Your task to perform on an android device: Open Maps and search for coffee Image 0: 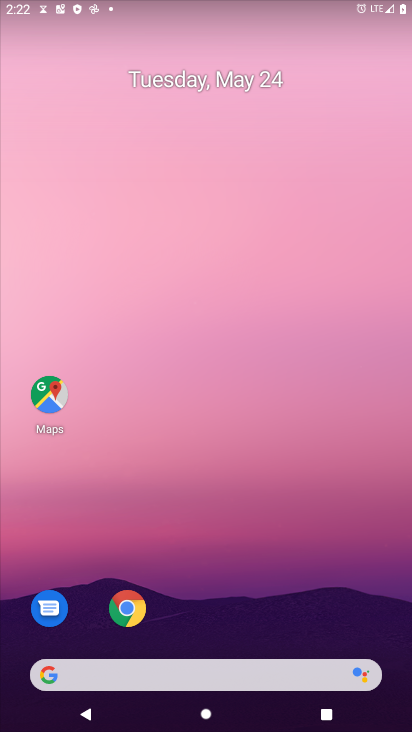
Step 0: drag from (277, 697) to (239, 289)
Your task to perform on an android device: Open Maps and search for coffee Image 1: 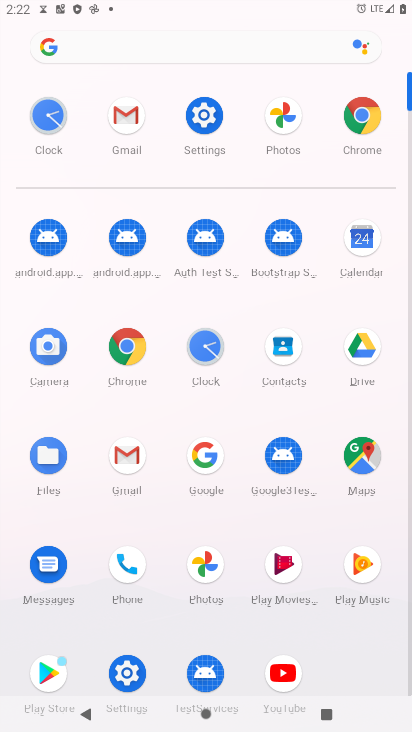
Step 1: click (348, 449)
Your task to perform on an android device: Open Maps and search for coffee Image 2: 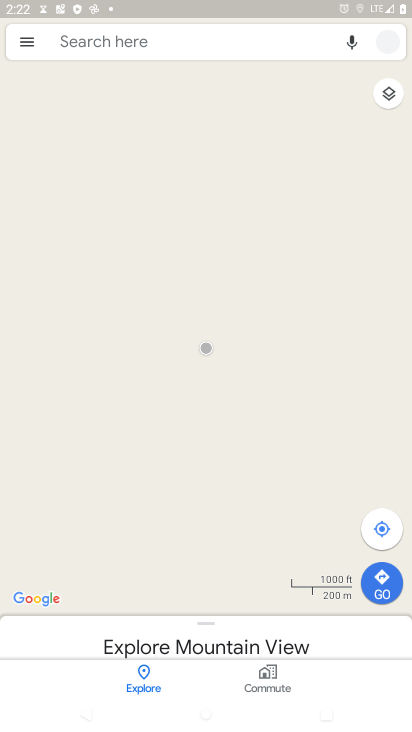
Step 2: click (102, 40)
Your task to perform on an android device: Open Maps and search for coffee Image 3: 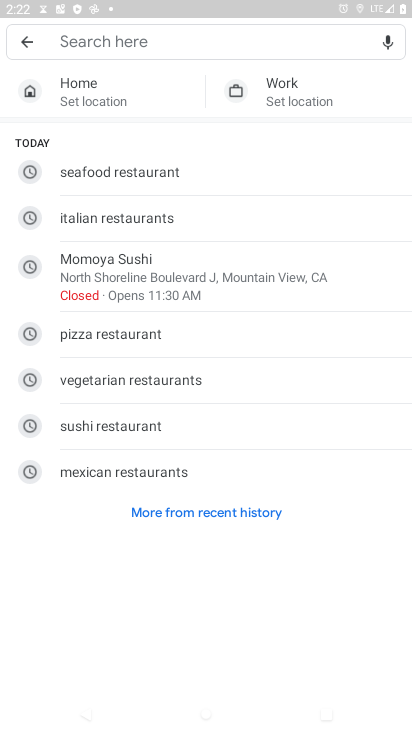
Step 3: click (113, 51)
Your task to perform on an android device: Open Maps and search for coffee Image 4: 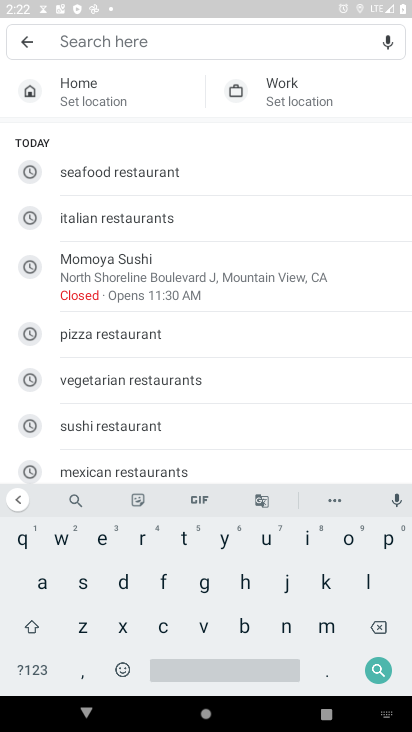
Step 4: click (160, 631)
Your task to perform on an android device: Open Maps and search for coffee Image 5: 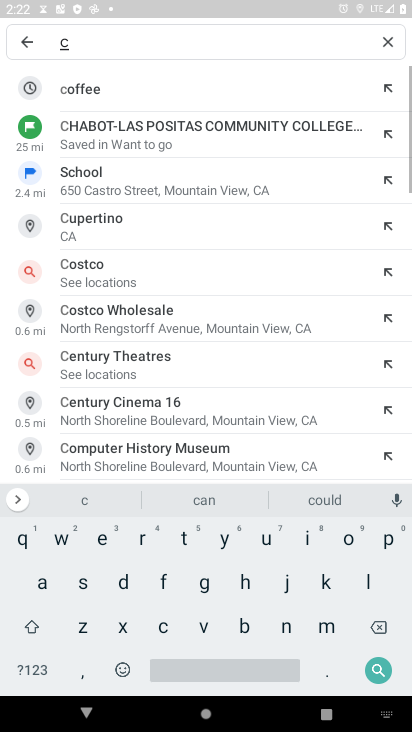
Step 5: click (121, 89)
Your task to perform on an android device: Open Maps and search for coffee Image 6: 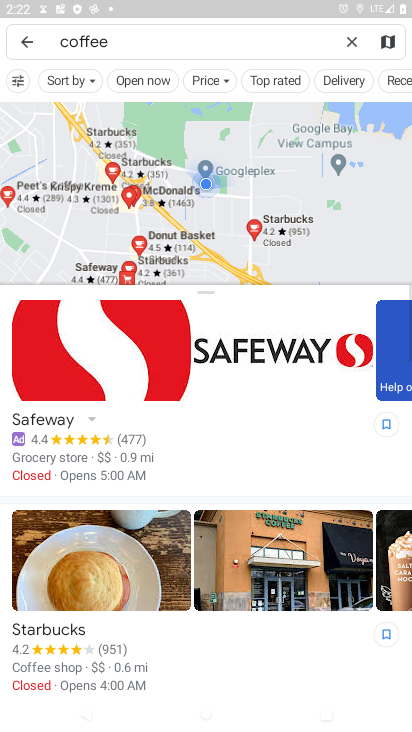
Step 6: task complete